Your task to perform on an android device: allow cookies in the chrome app Image 0: 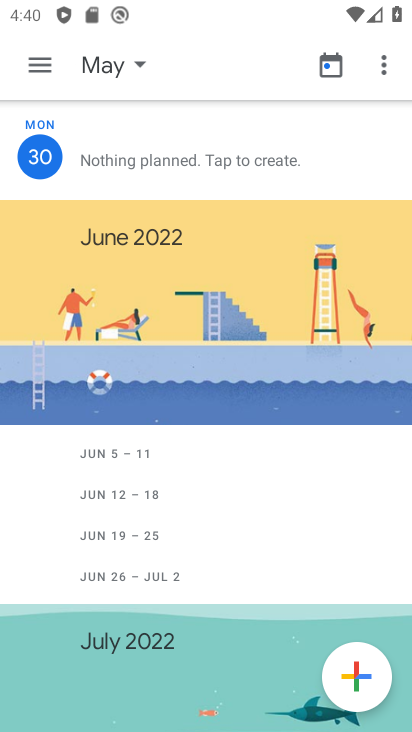
Step 0: press back button
Your task to perform on an android device: allow cookies in the chrome app Image 1: 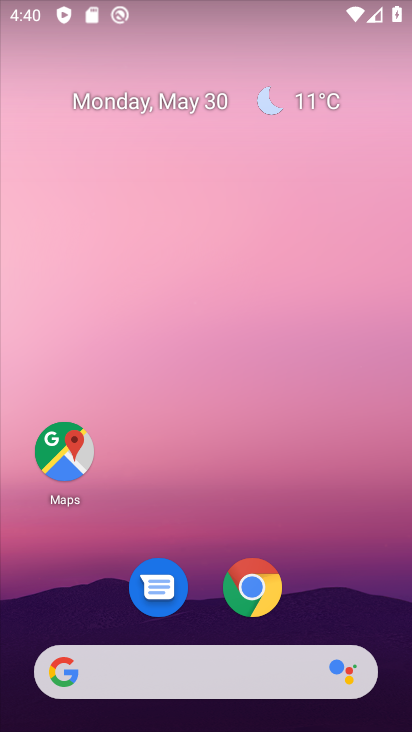
Step 1: drag from (292, 416) to (236, 32)
Your task to perform on an android device: allow cookies in the chrome app Image 2: 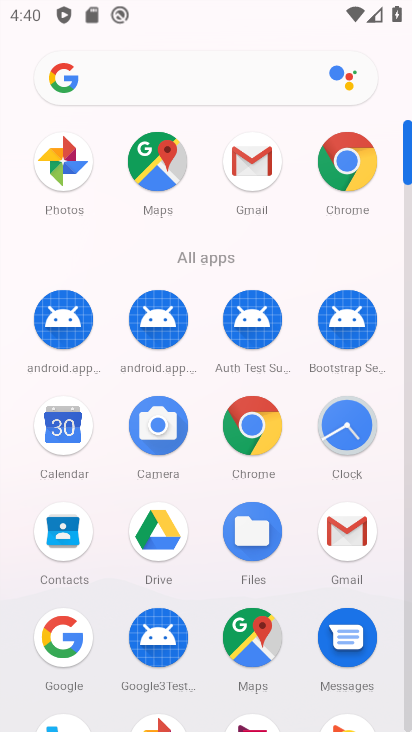
Step 2: drag from (24, 481) to (11, 239)
Your task to perform on an android device: allow cookies in the chrome app Image 3: 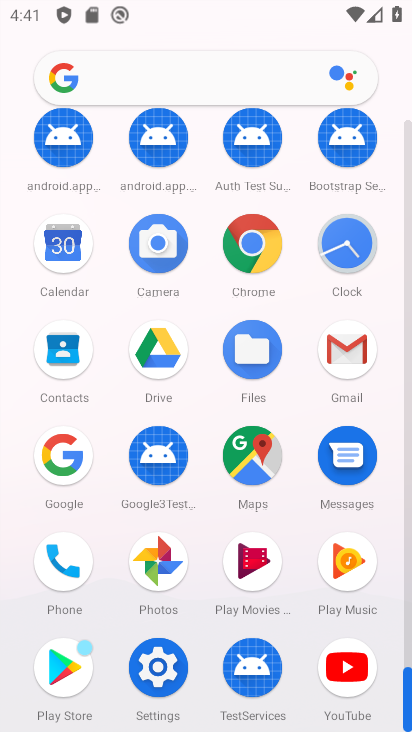
Step 3: click (248, 240)
Your task to perform on an android device: allow cookies in the chrome app Image 4: 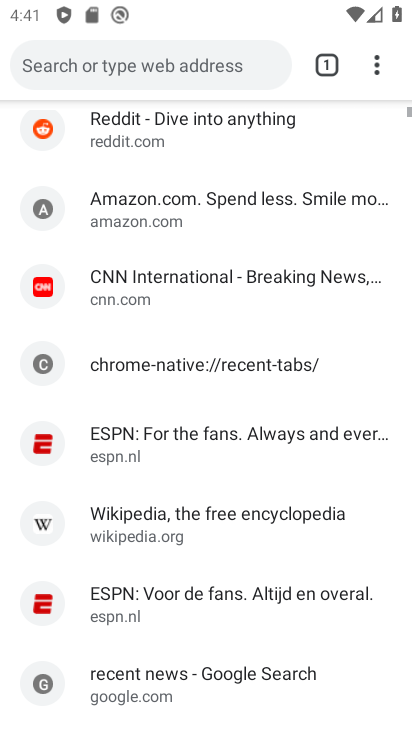
Step 4: drag from (379, 67) to (160, 546)
Your task to perform on an android device: allow cookies in the chrome app Image 5: 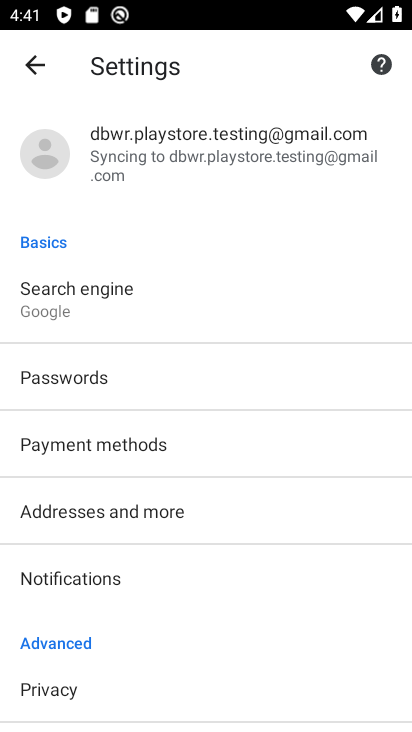
Step 5: drag from (177, 561) to (225, 149)
Your task to perform on an android device: allow cookies in the chrome app Image 6: 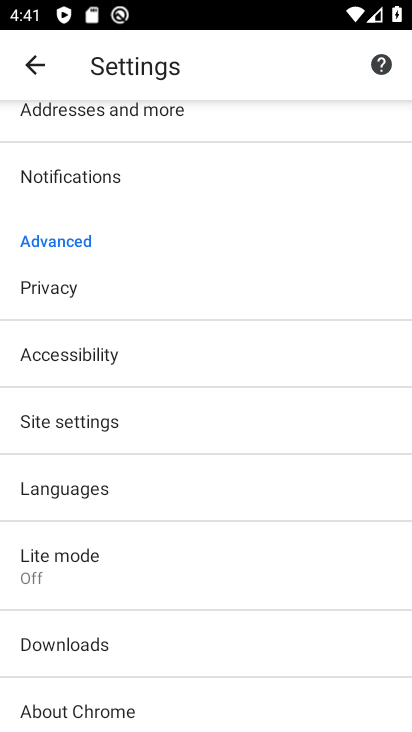
Step 6: click (107, 419)
Your task to perform on an android device: allow cookies in the chrome app Image 7: 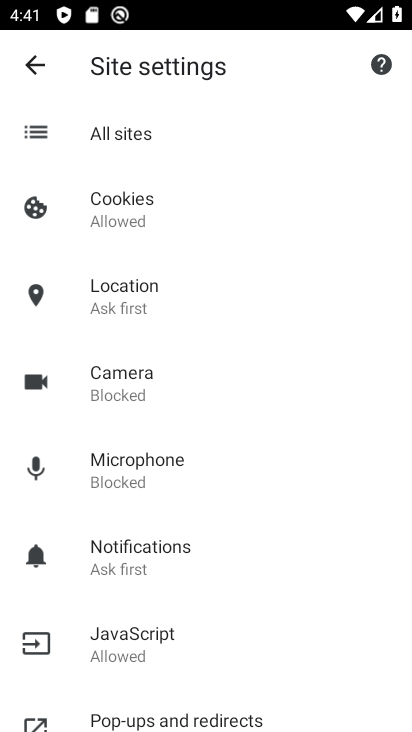
Step 7: click (158, 217)
Your task to perform on an android device: allow cookies in the chrome app Image 8: 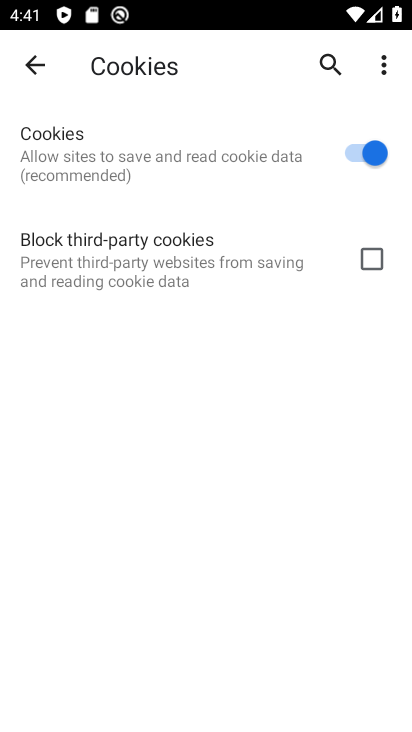
Step 8: task complete